Your task to perform on an android device: Set the phone to "Do not disturb". Image 0: 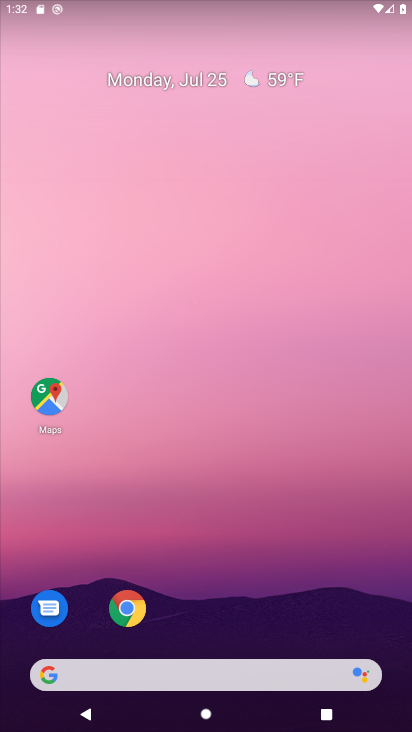
Step 0: drag from (374, 625) to (344, 92)
Your task to perform on an android device: Set the phone to "Do not disturb". Image 1: 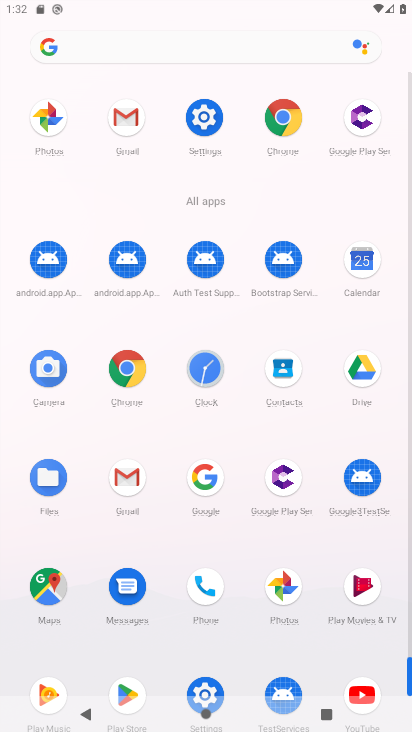
Step 1: drag from (239, 663) to (249, 382)
Your task to perform on an android device: Set the phone to "Do not disturb". Image 2: 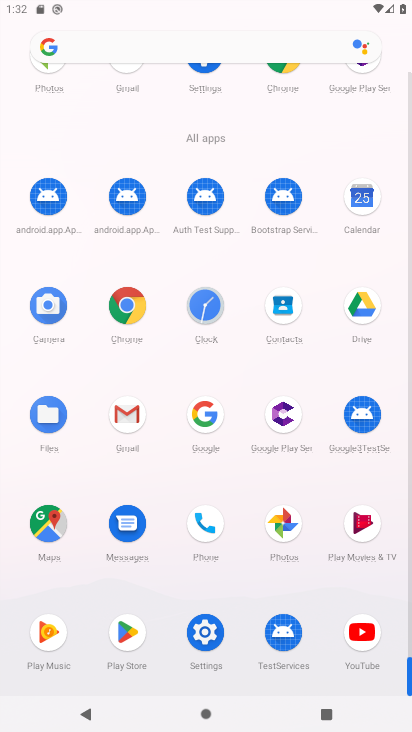
Step 2: click (205, 634)
Your task to perform on an android device: Set the phone to "Do not disturb". Image 3: 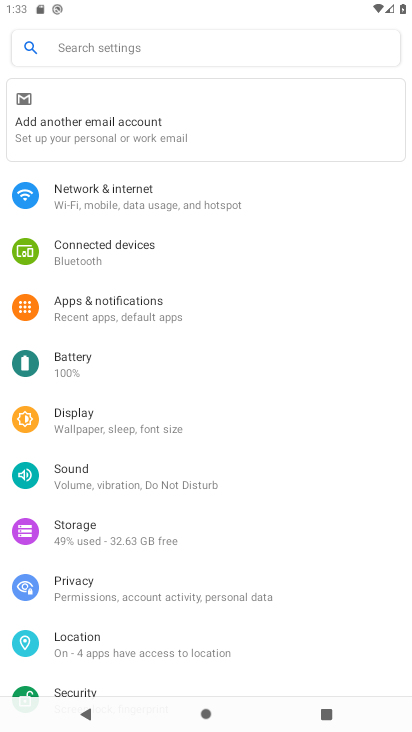
Step 3: click (77, 462)
Your task to perform on an android device: Set the phone to "Do not disturb". Image 4: 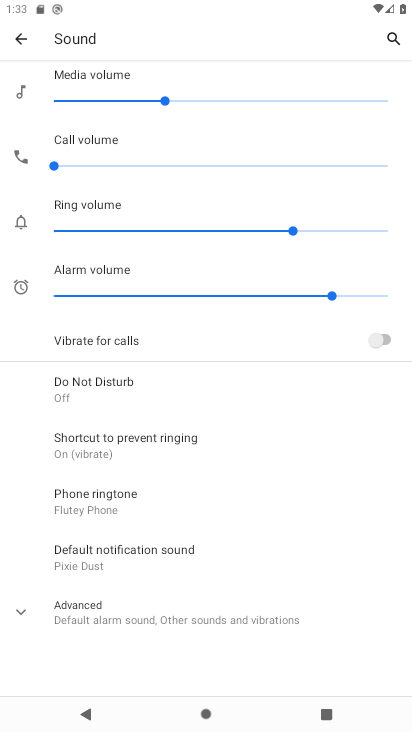
Step 4: click (75, 386)
Your task to perform on an android device: Set the phone to "Do not disturb". Image 5: 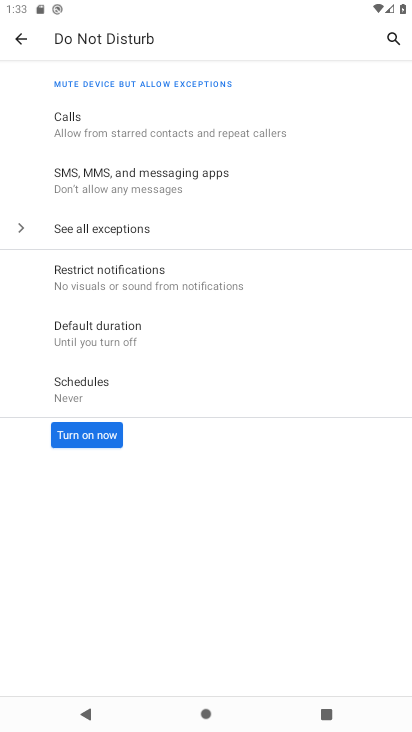
Step 5: click (81, 433)
Your task to perform on an android device: Set the phone to "Do not disturb". Image 6: 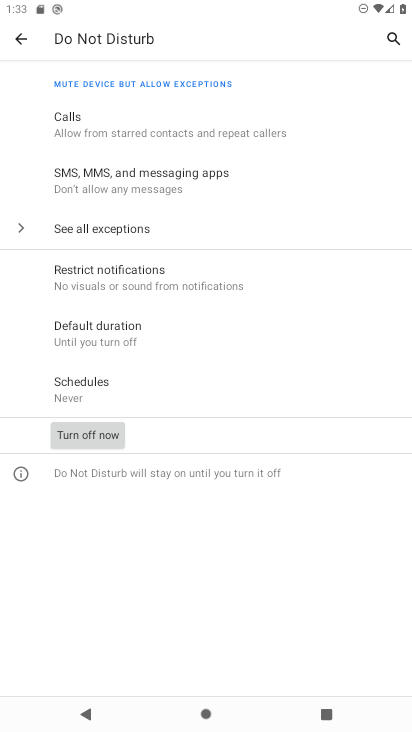
Step 6: task complete